Your task to perform on an android device: Go to notification settings Image 0: 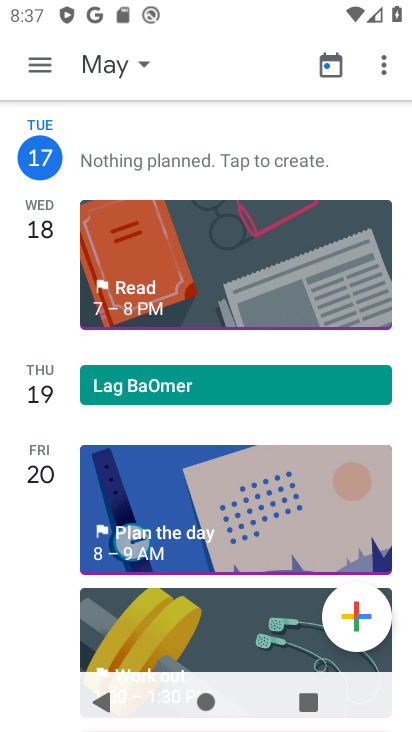
Step 0: press home button
Your task to perform on an android device: Go to notification settings Image 1: 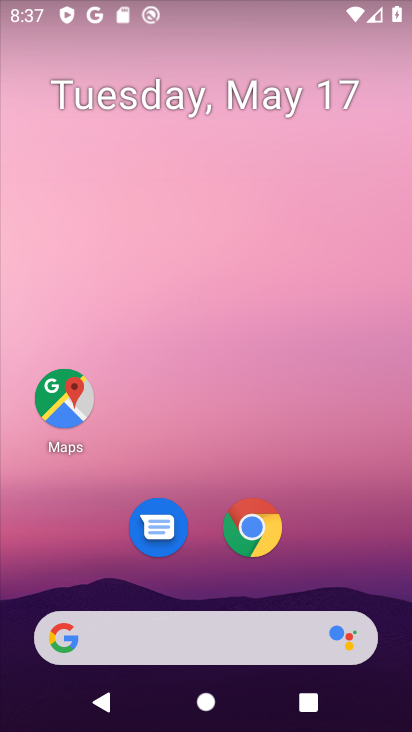
Step 1: drag from (183, 591) to (241, 1)
Your task to perform on an android device: Go to notification settings Image 2: 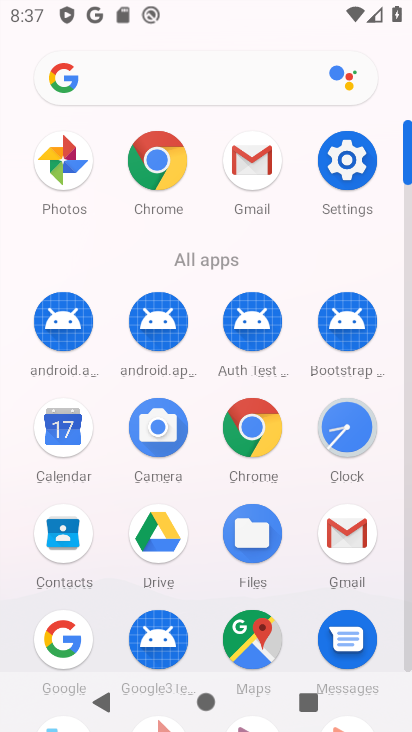
Step 2: click (334, 151)
Your task to perform on an android device: Go to notification settings Image 3: 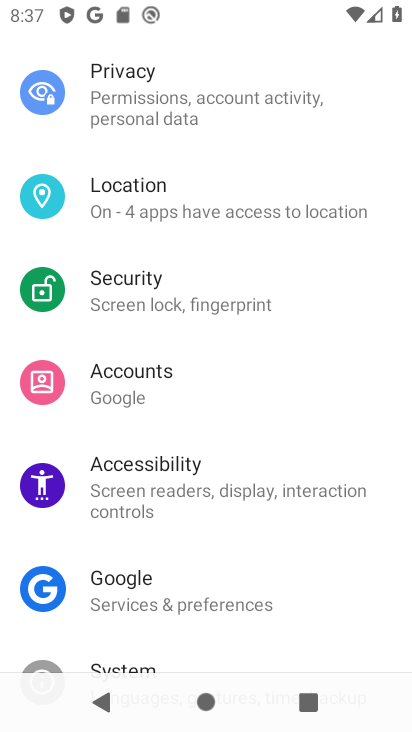
Step 3: drag from (180, 492) to (136, 135)
Your task to perform on an android device: Go to notification settings Image 4: 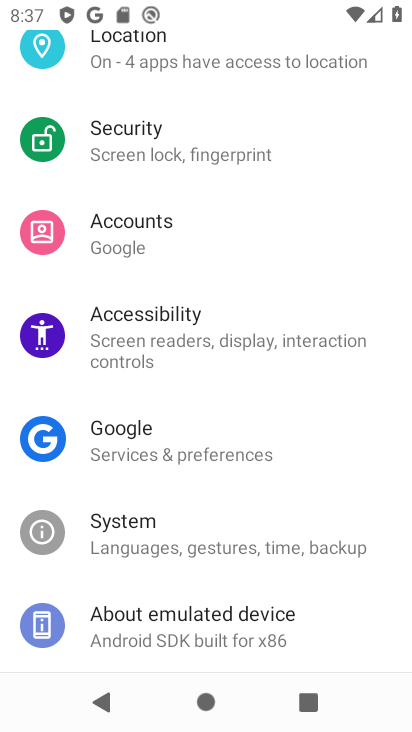
Step 4: drag from (177, 235) to (160, 709)
Your task to perform on an android device: Go to notification settings Image 5: 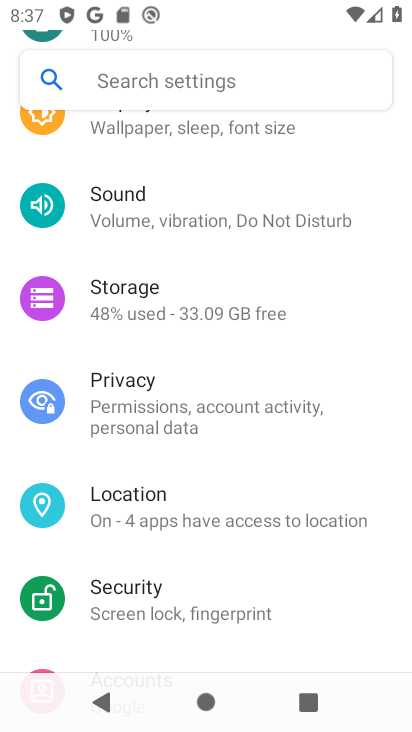
Step 5: drag from (204, 198) to (200, 674)
Your task to perform on an android device: Go to notification settings Image 6: 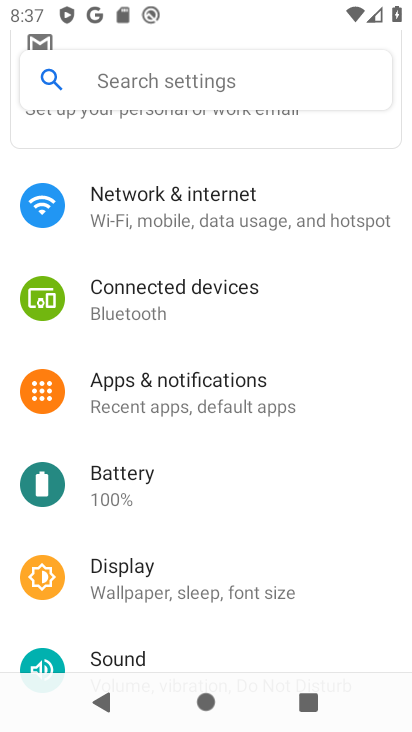
Step 6: click (195, 407)
Your task to perform on an android device: Go to notification settings Image 7: 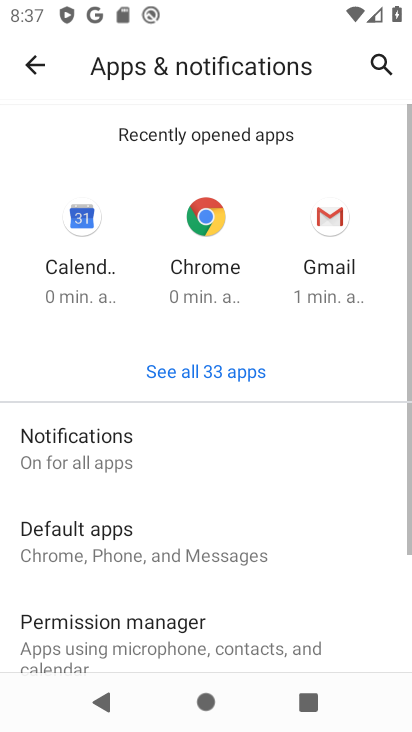
Step 7: click (178, 450)
Your task to perform on an android device: Go to notification settings Image 8: 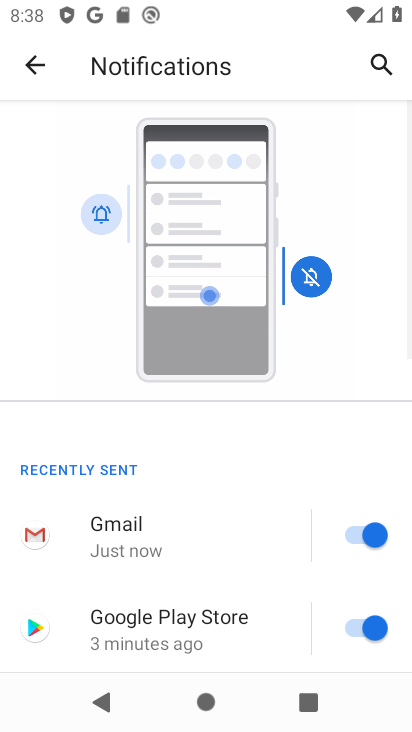
Step 8: task complete